Your task to perform on an android device: Open CNN.com Image 0: 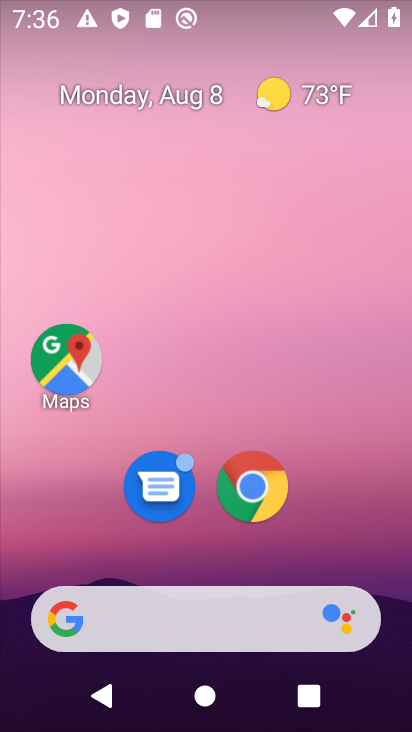
Step 0: drag from (190, 528) to (225, 32)
Your task to perform on an android device: Open CNN.com Image 1: 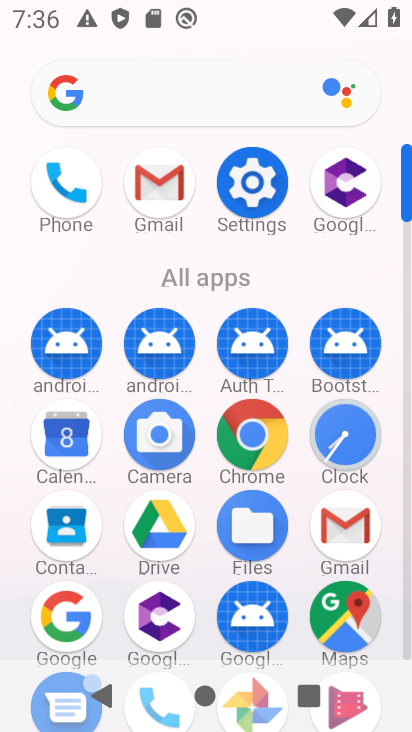
Step 1: click (228, 443)
Your task to perform on an android device: Open CNN.com Image 2: 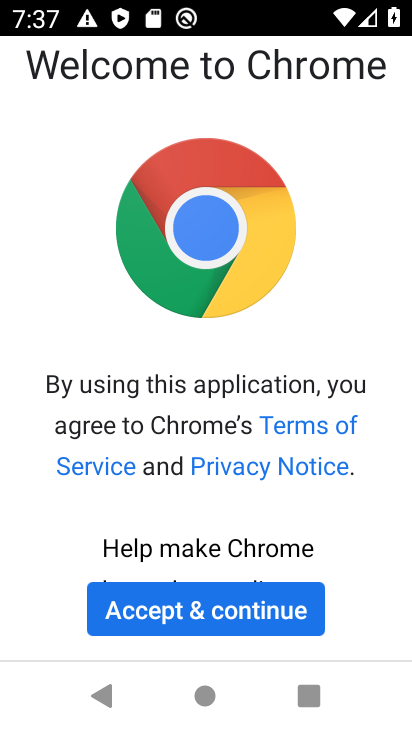
Step 2: click (144, 623)
Your task to perform on an android device: Open CNN.com Image 3: 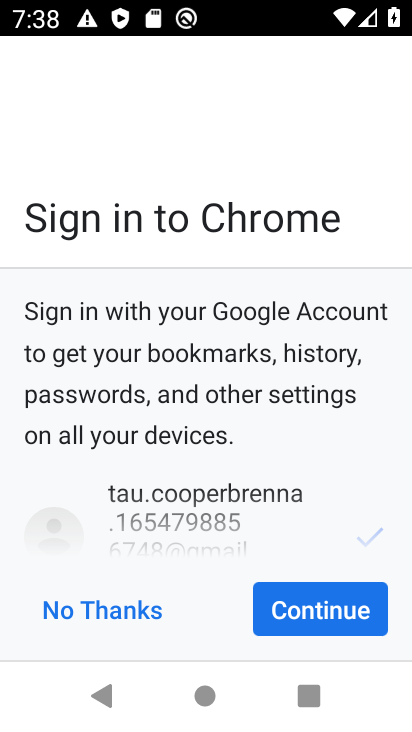
Step 3: click (94, 612)
Your task to perform on an android device: Open CNN.com Image 4: 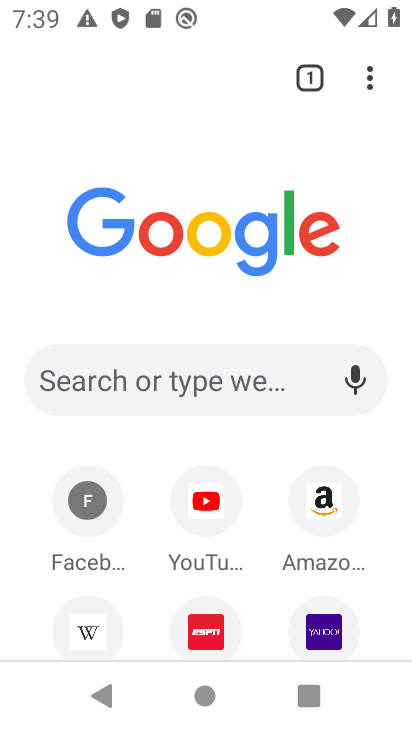
Step 4: drag from (247, 525) to (318, 160)
Your task to perform on an android device: Open CNN.com Image 5: 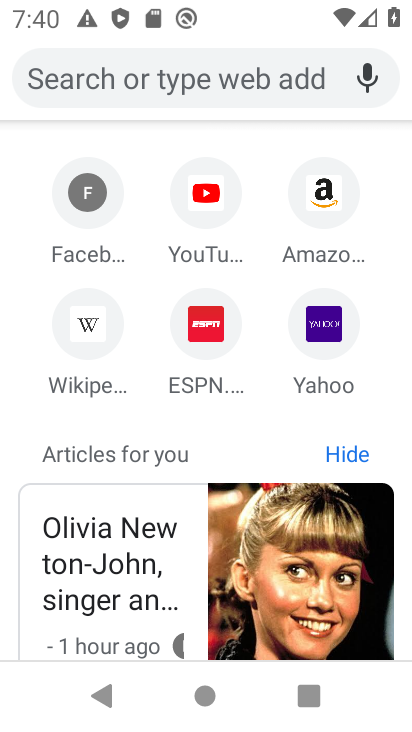
Step 5: click (141, 92)
Your task to perform on an android device: Open CNN.com Image 6: 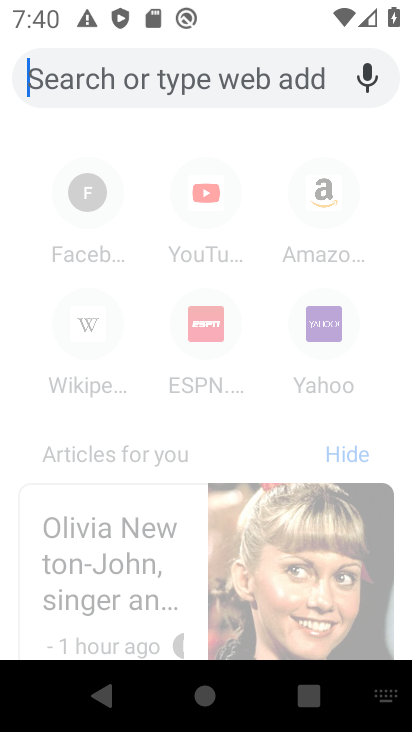
Step 6: type "CNN.com"
Your task to perform on an android device: Open CNN.com Image 7: 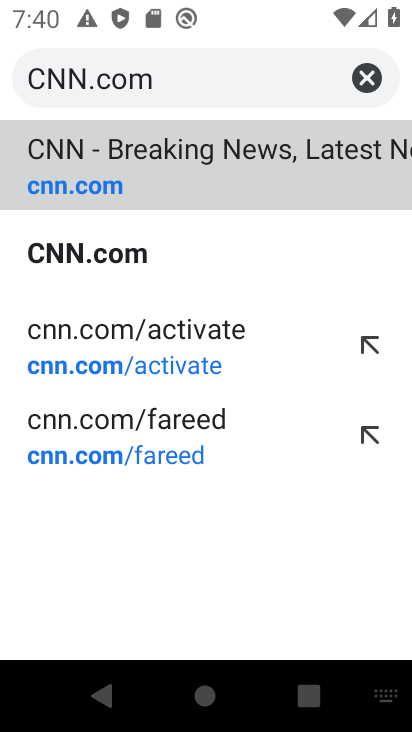
Step 7: click (137, 134)
Your task to perform on an android device: Open CNN.com Image 8: 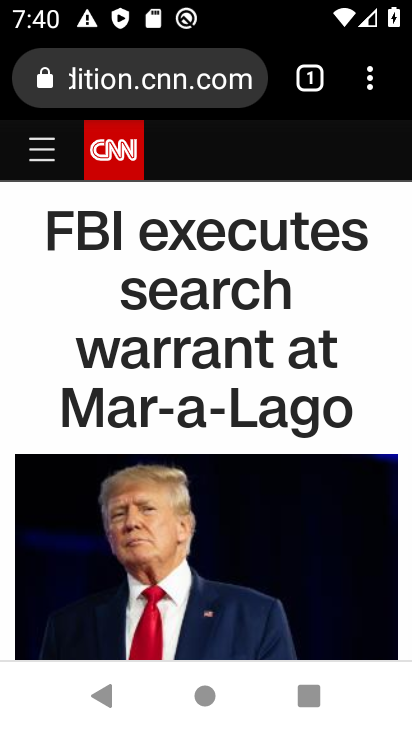
Step 8: task complete